Your task to perform on an android device: Turn on the flashlight Image 0: 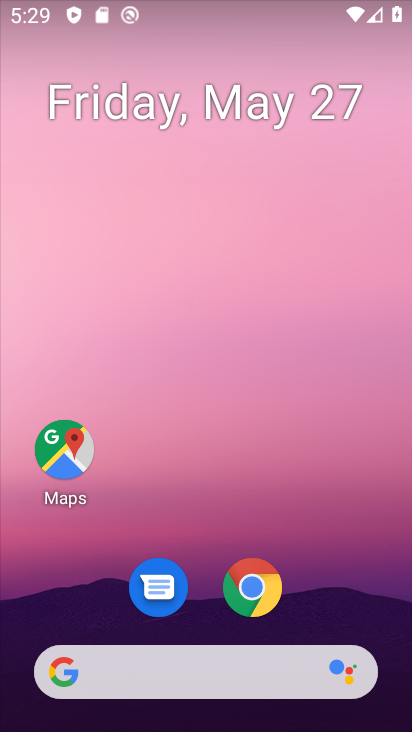
Step 0: drag from (266, 29) to (246, 364)
Your task to perform on an android device: Turn on the flashlight Image 1: 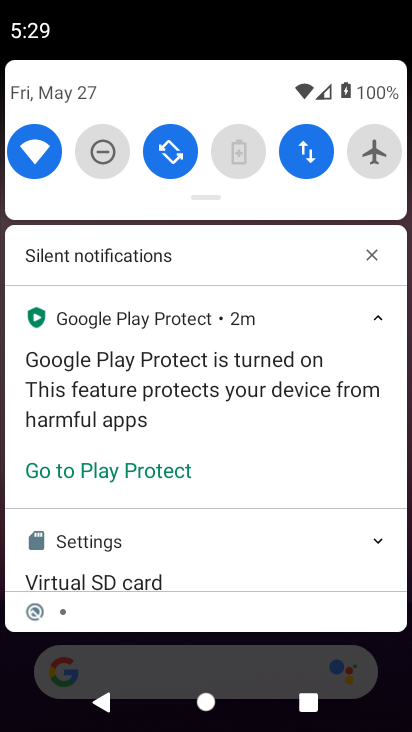
Step 1: task complete